Your task to perform on an android device: check battery use Image 0: 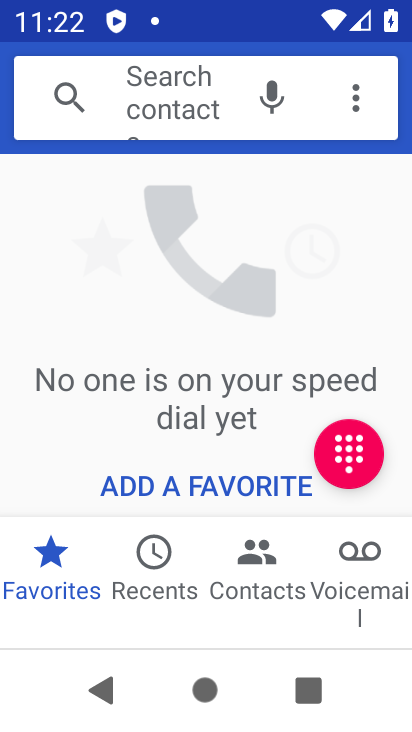
Step 0: press home button
Your task to perform on an android device: check battery use Image 1: 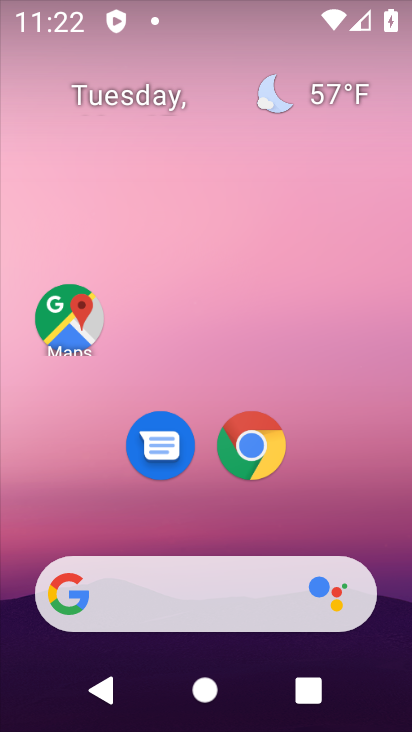
Step 1: drag from (356, 483) to (360, 168)
Your task to perform on an android device: check battery use Image 2: 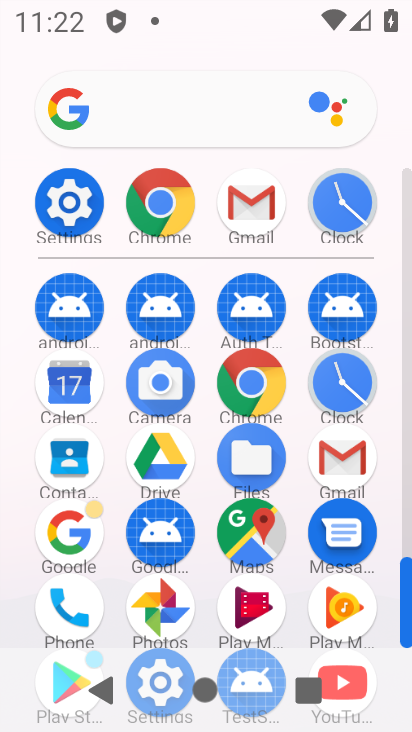
Step 2: click (81, 221)
Your task to perform on an android device: check battery use Image 3: 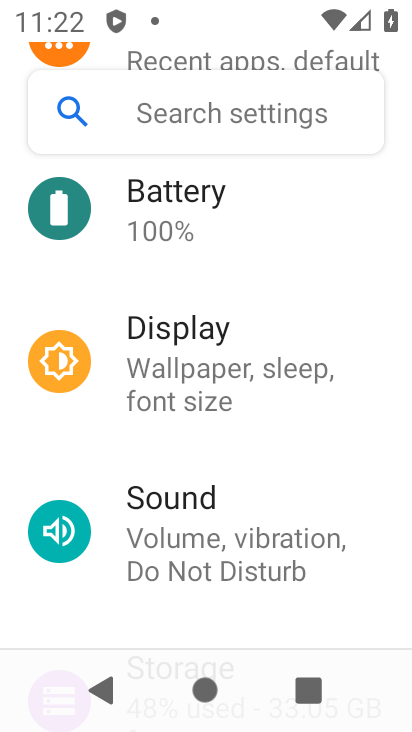
Step 3: drag from (351, 580) to (367, 430)
Your task to perform on an android device: check battery use Image 4: 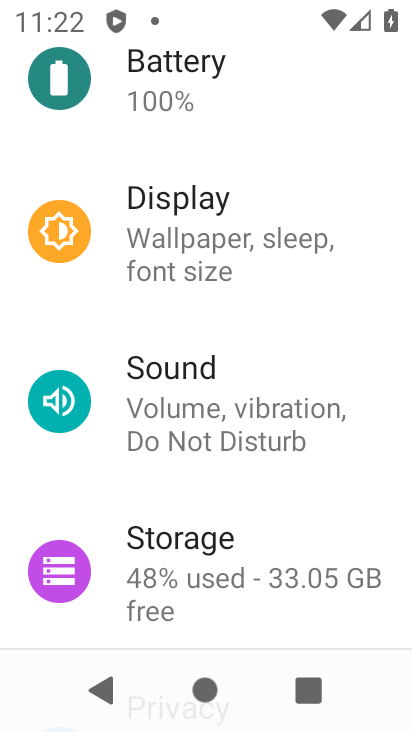
Step 4: drag from (352, 608) to (366, 424)
Your task to perform on an android device: check battery use Image 5: 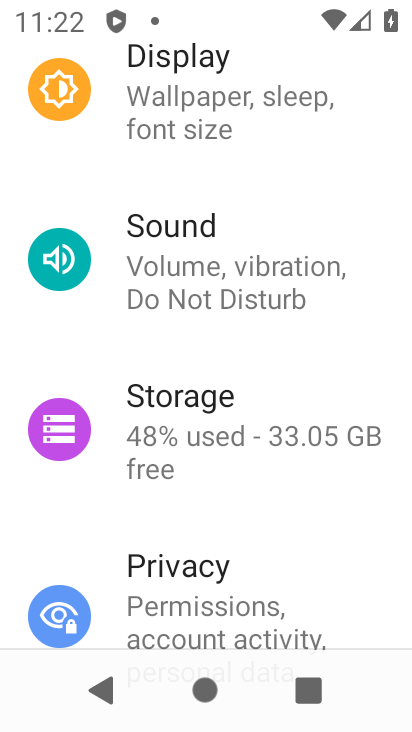
Step 5: drag from (352, 556) to (352, 389)
Your task to perform on an android device: check battery use Image 6: 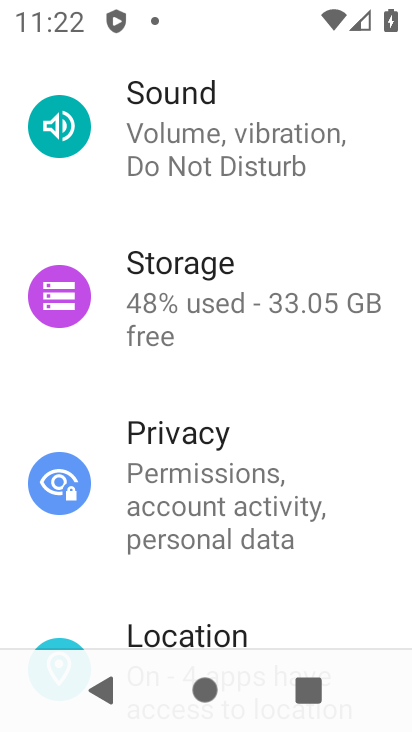
Step 6: drag from (362, 561) to (350, 414)
Your task to perform on an android device: check battery use Image 7: 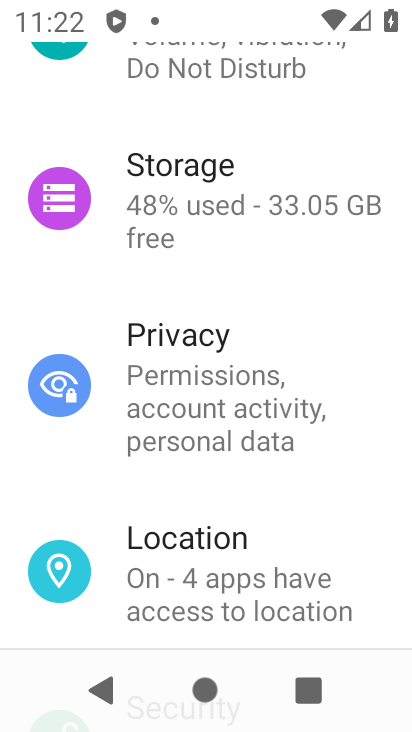
Step 7: drag from (366, 490) to (365, 360)
Your task to perform on an android device: check battery use Image 8: 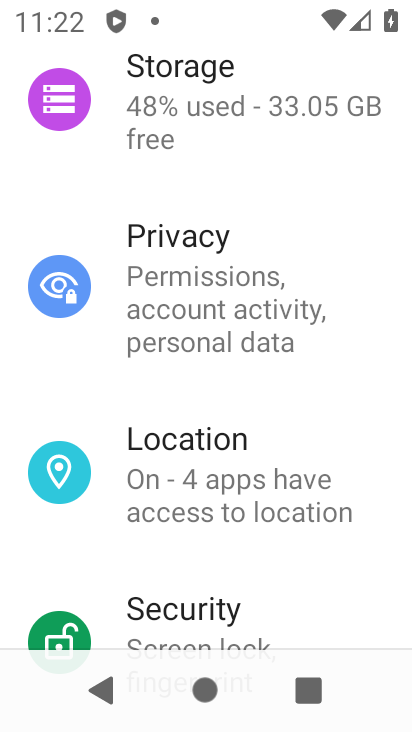
Step 8: drag from (370, 585) to (369, 405)
Your task to perform on an android device: check battery use Image 9: 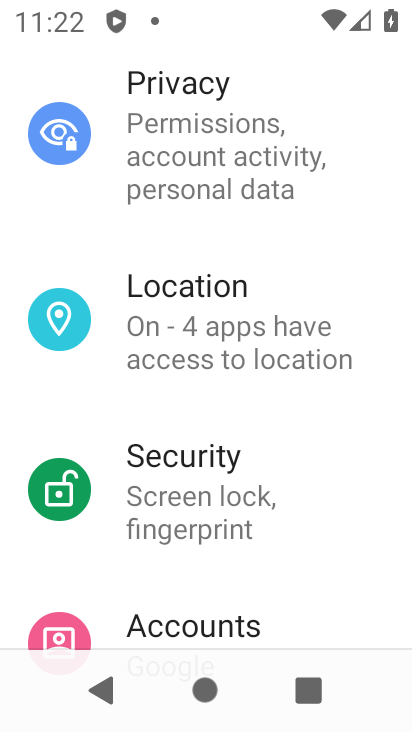
Step 9: drag from (353, 569) to (359, 399)
Your task to perform on an android device: check battery use Image 10: 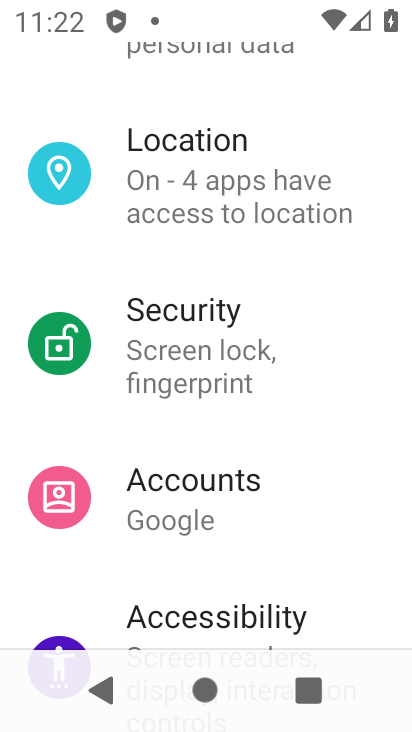
Step 10: drag from (349, 569) to (354, 410)
Your task to perform on an android device: check battery use Image 11: 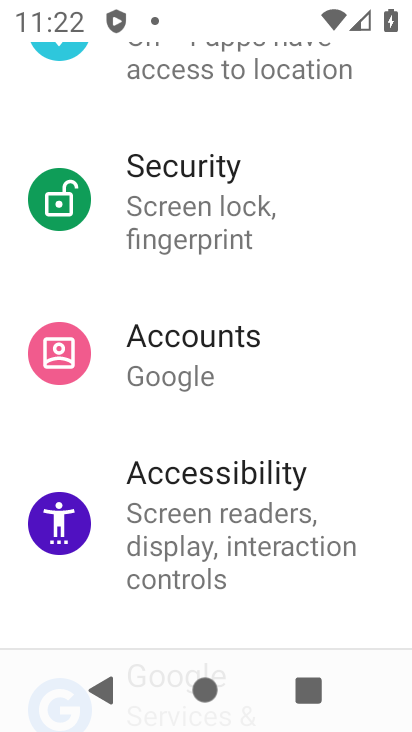
Step 11: drag from (354, 489) to (360, 332)
Your task to perform on an android device: check battery use Image 12: 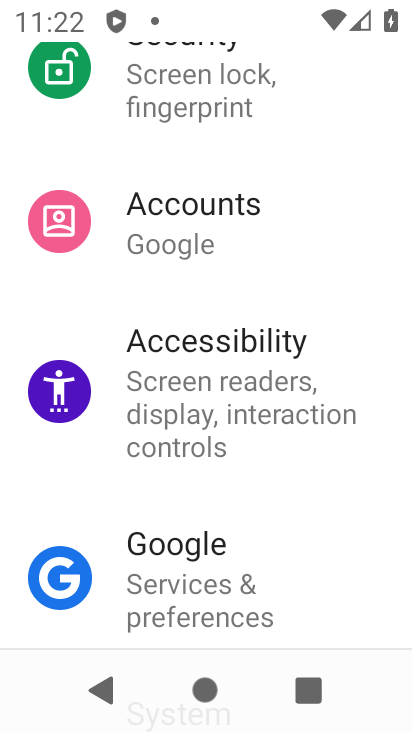
Step 12: drag from (363, 312) to (357, 461)
Your task to perform on an android device: check battery use Image 13: 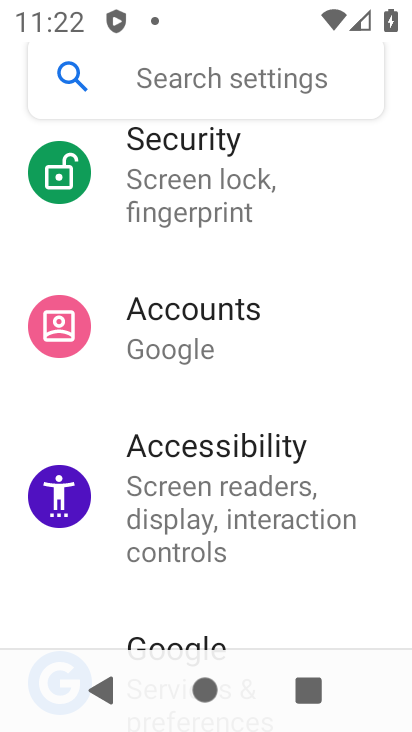
Step 13: drag from (371, 349) to (365, 454)
Your task to perform on an android device: check battery use Image 14: 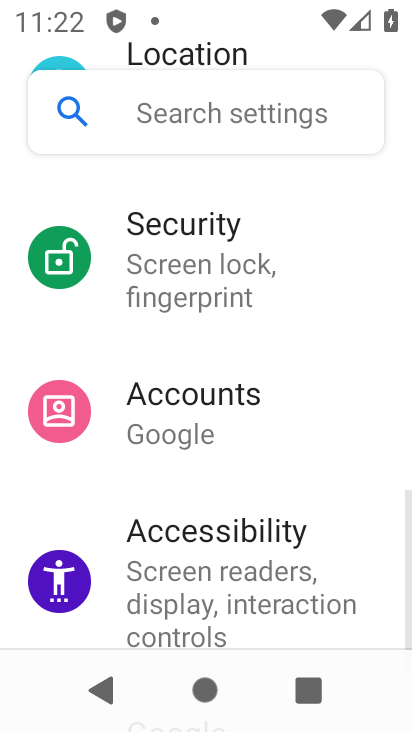
Step 14: drag from (365, 303) to (344, 482)
Your task to perform on an android device: check battery use Image 15: 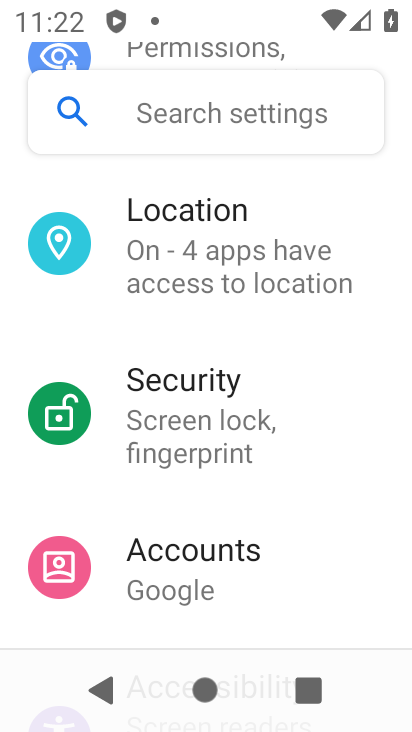
Step 15: drag from (343, 318) to (326, 465)
Your task to perform on an android device: check battery use Image 16: 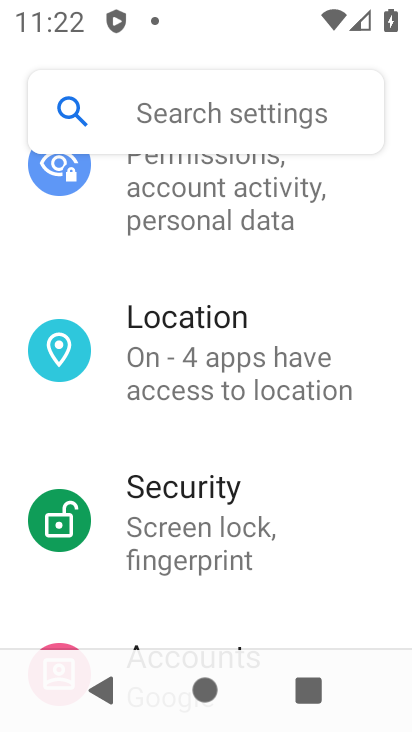
Step 16: drag from (355, 272) to (331, 468)
Your task to perform on an android device: check battery use Image 17: 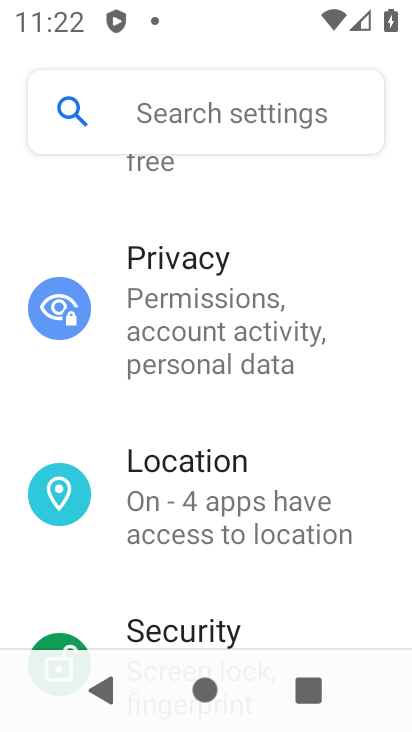
Step 17: drag from (344, 251) to (327, 414)
Your task to perform on an android device: check battery use Image 18: 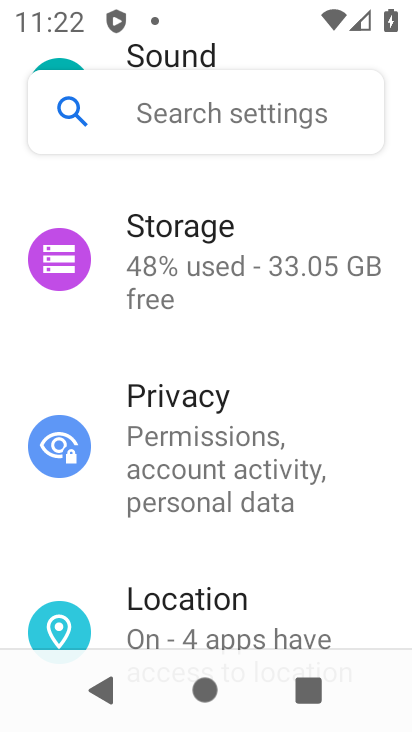
Step 18: drag from (351, 192) to (327, 392)
Your task to perform on an android device: check battery use Image 19: 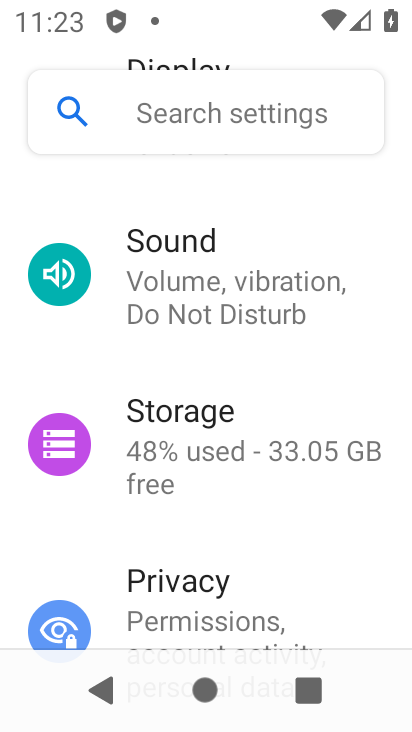
Step 19: drag from (348, 220) to (317, 399)
Your task to perform on an android device: check battery use Image 20: 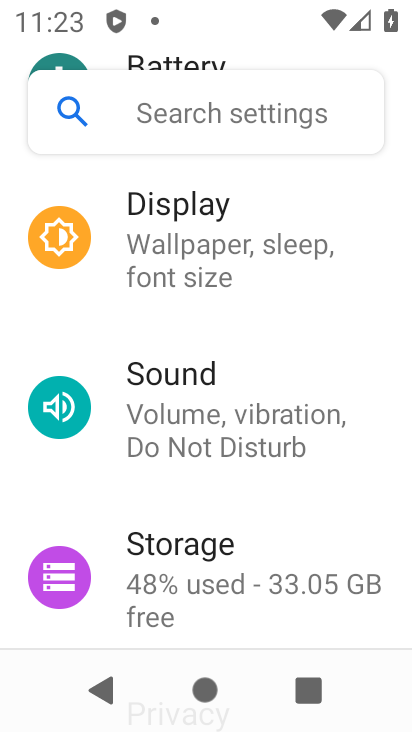
Step 20: drag from (332, 198) to (309, 376)
Your task to perform on an android device: check battery use Image 21: 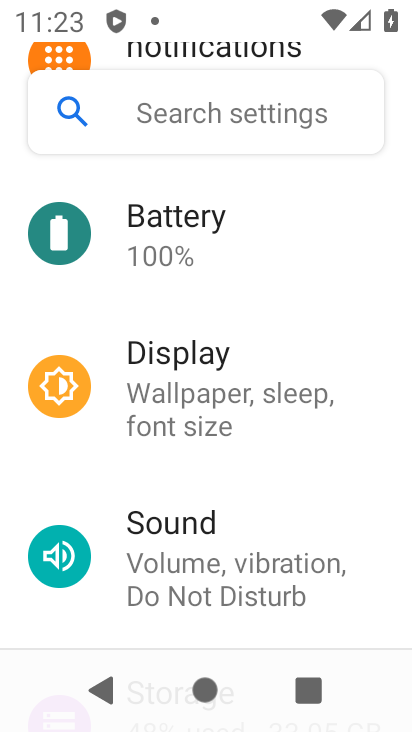
Step 21: drag from (309, 237) to (303, 323)
Your task to perform on an android device: check battery use Image 22: 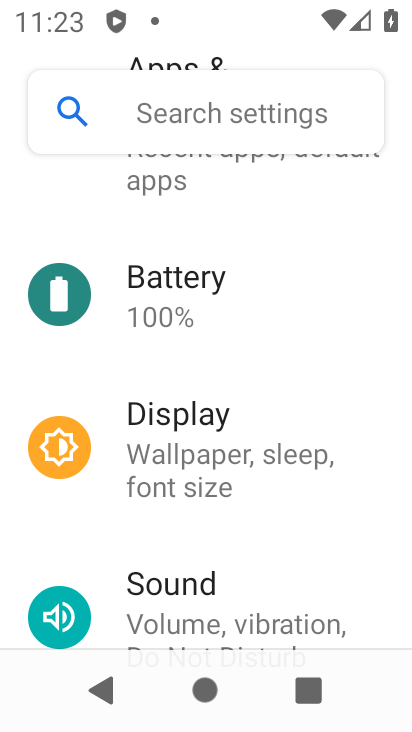
Step 22: click (264, 306)
Your task to perform on an android device: check battery use Image 23: 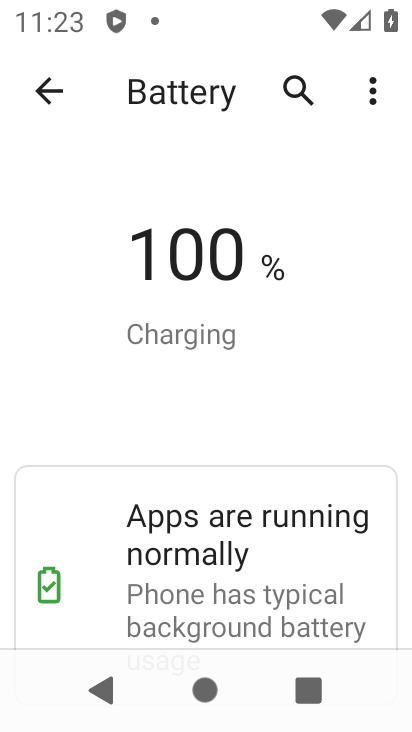
Step 23: click (375, 82)
Your task to perform on an android device: check battery use Image 24: 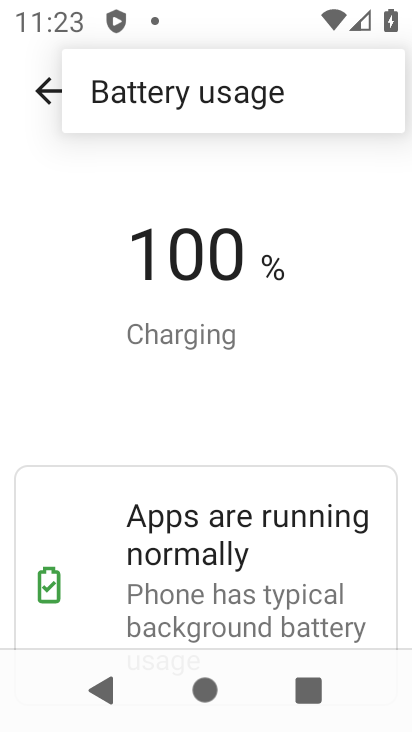
Step 24: click (253, 92)
Your task to perform on an android device: check battery use Image 25: 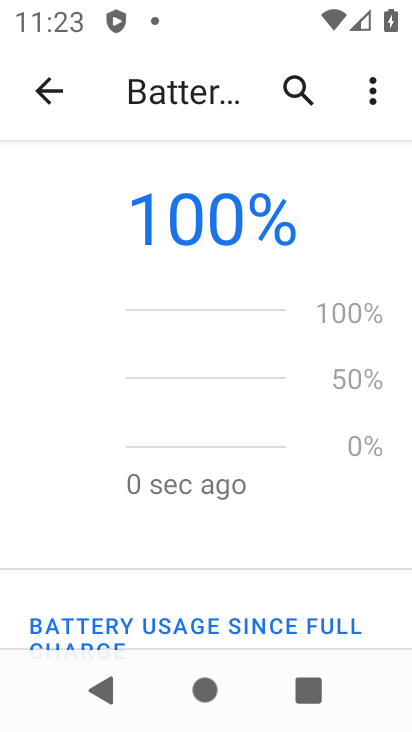
Step 25: task complete